Your task to perform on an android device: see sites visited before in the chrome app Image 0: 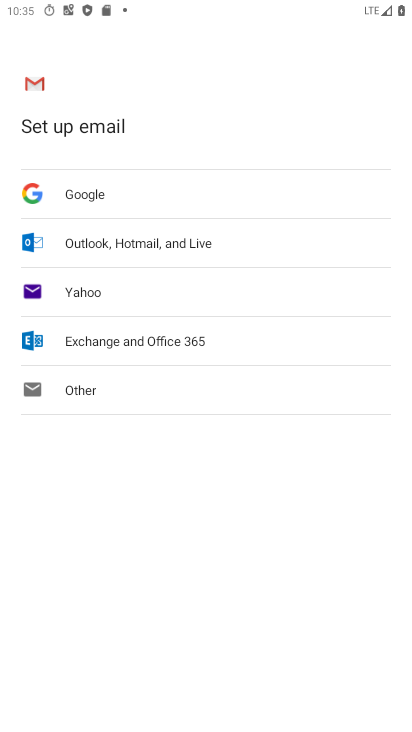
Step 0: press home button
Your task to perform on an android device: see sites visited before in the chrome app Image 1: 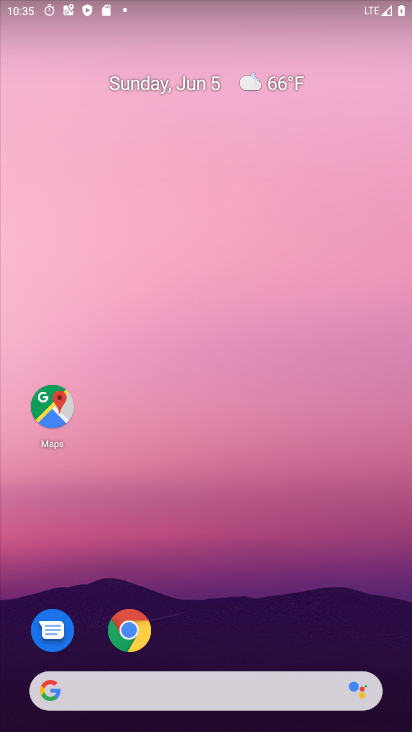
Step 1: click (124, 632)
Your task to perform on an android device: see sites visited before in the chrome app Image 2: 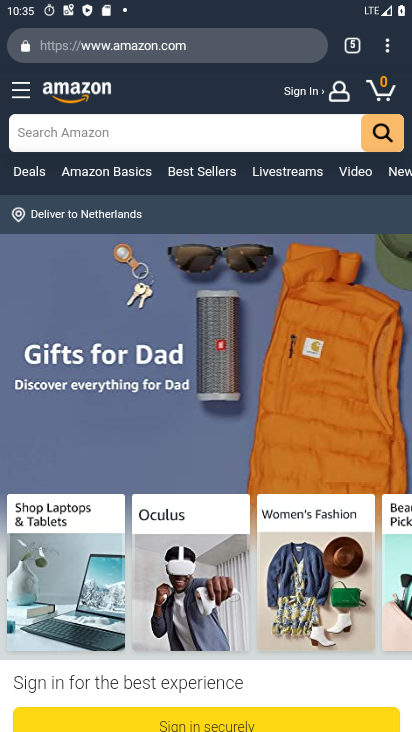
Step 2: click (387, 53)
Your task to perform on an android device: see sites visited before in the chrome app Image 3: 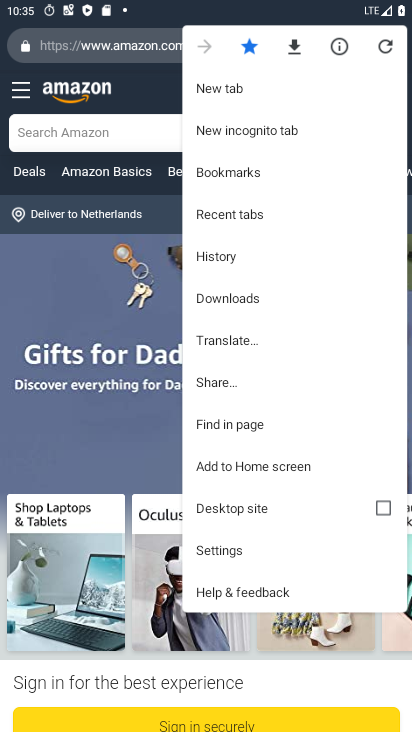
Step 3: click (226, 251)
Your task to perform on an android device: see sites visited before in the chrome app Image 4: 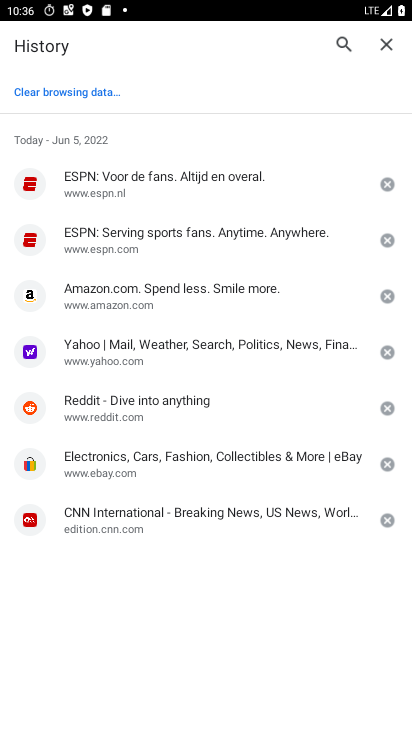
Step 4: task complete